Your task to perform on an android device: change the clock display to digital Image 0: 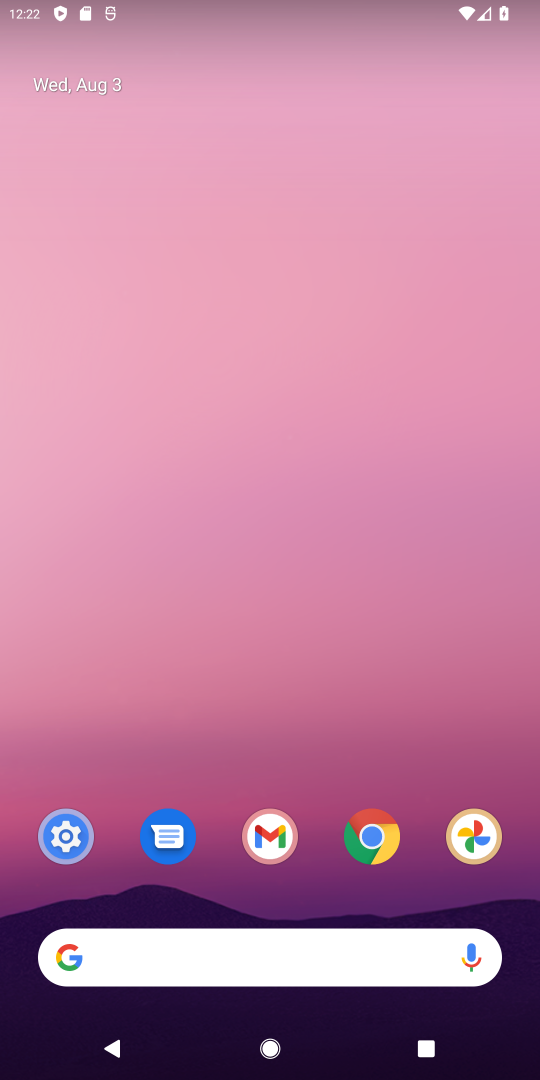
Step 0: drag from (249, 844) to (363, 418)
Your task to perform on an android device: change the clock display to digital Image 1: 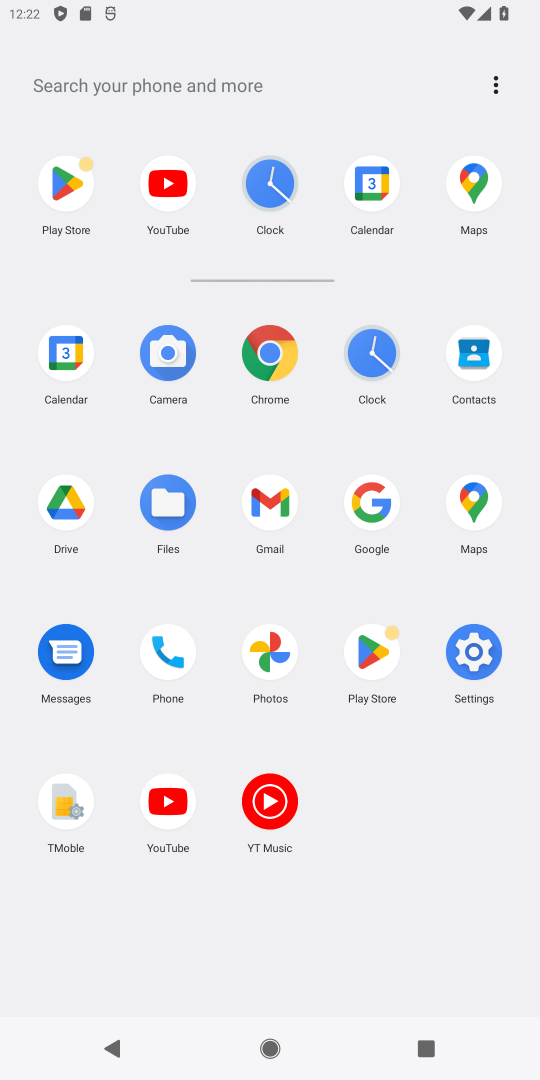
Step 1: drag from (327, 871) to (280, 505)
Your task to perform on an android device: change the clock display to digital Image 2: 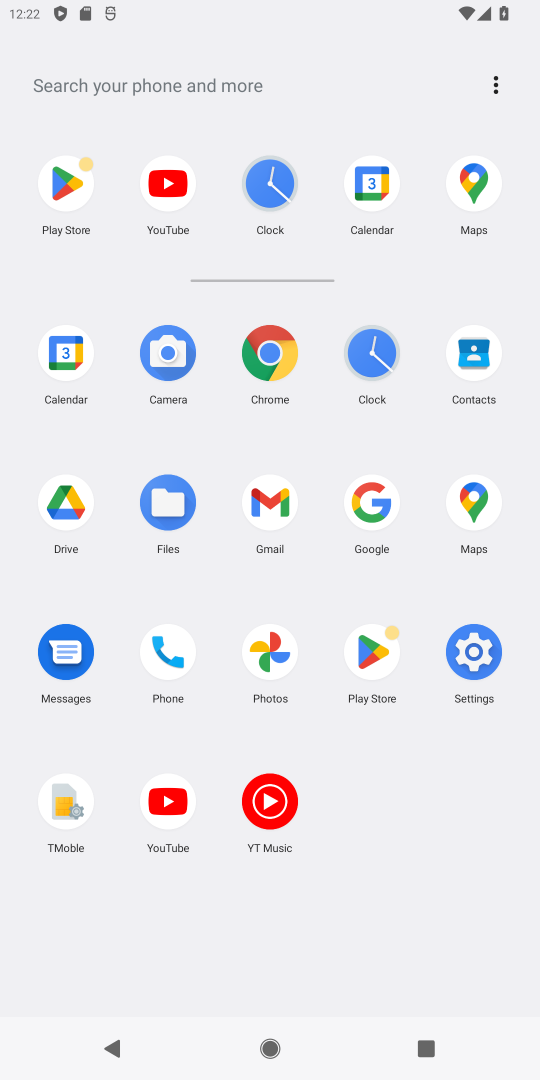
Step 2: click (370, 352)
Your task to perform on an android device: change the clock display to digital Image 3: 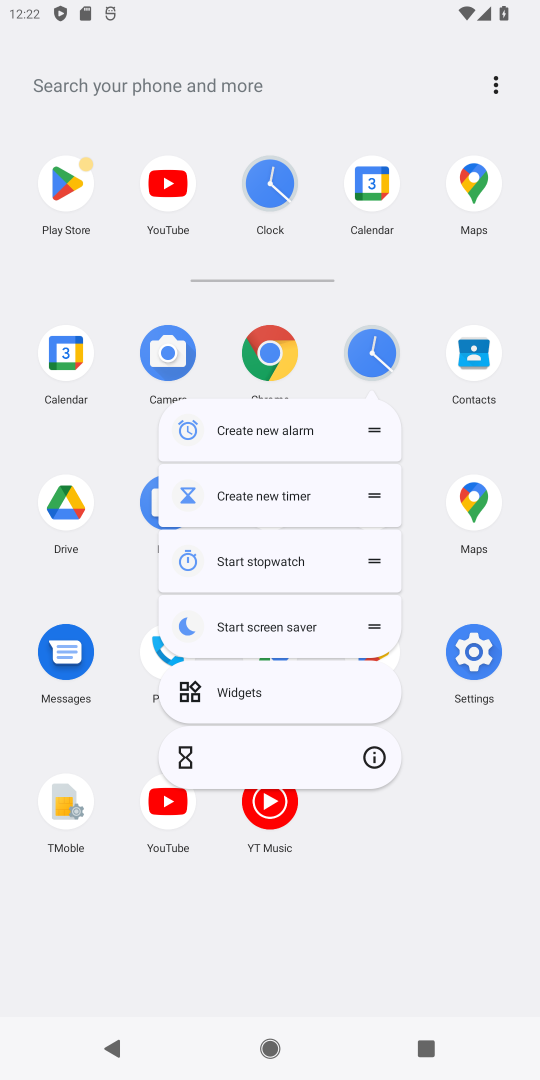
Step 3: click (369, 761)
Your task to perform on an android device: change the clock display to digital Image 4: 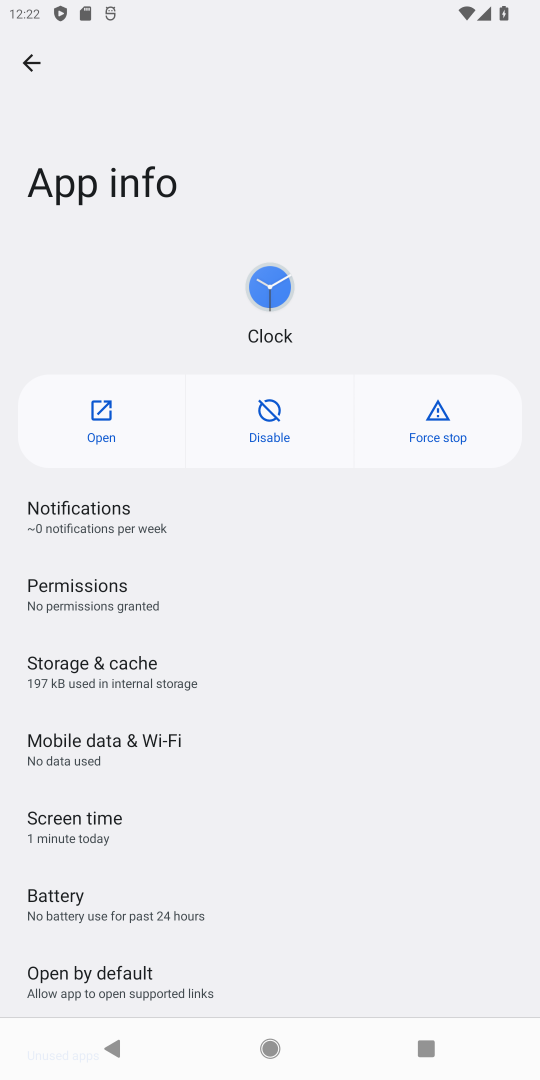
Step 4: click (103, 410)
Your task to perform on an android device: change the clock display to digital Image 5: 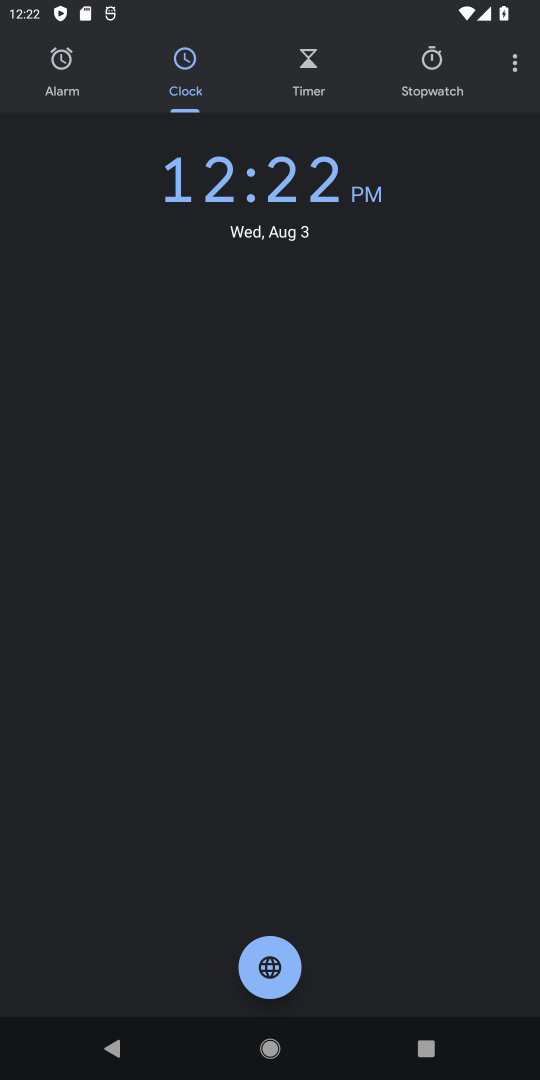
Step 5: click (519, 75)
Your task to perform on an android device: change the clock display to digital Image 6: 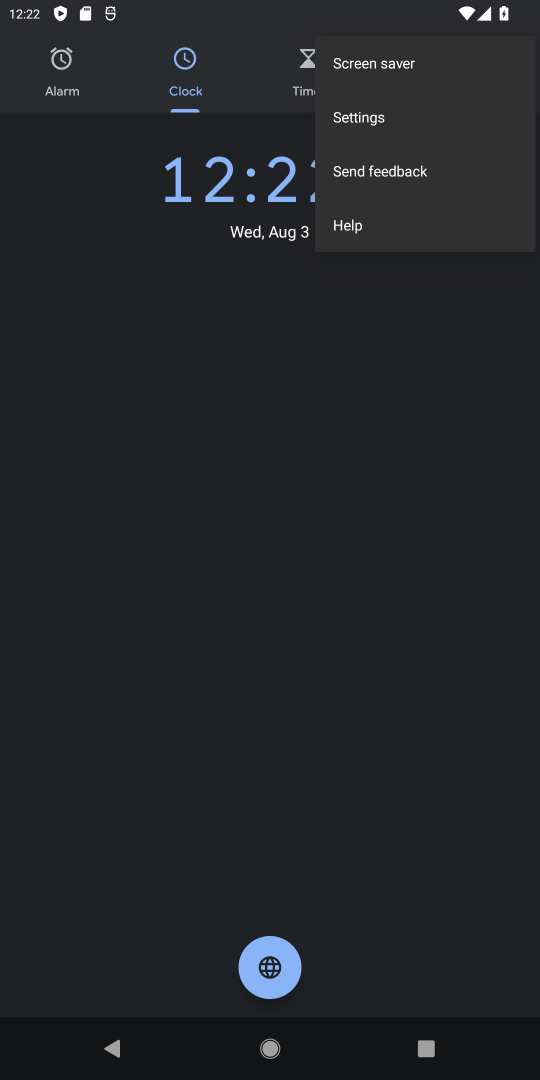
Step 6: click (381, 113)
Your task to perform on an android device: change the clock display to digital Image 7: 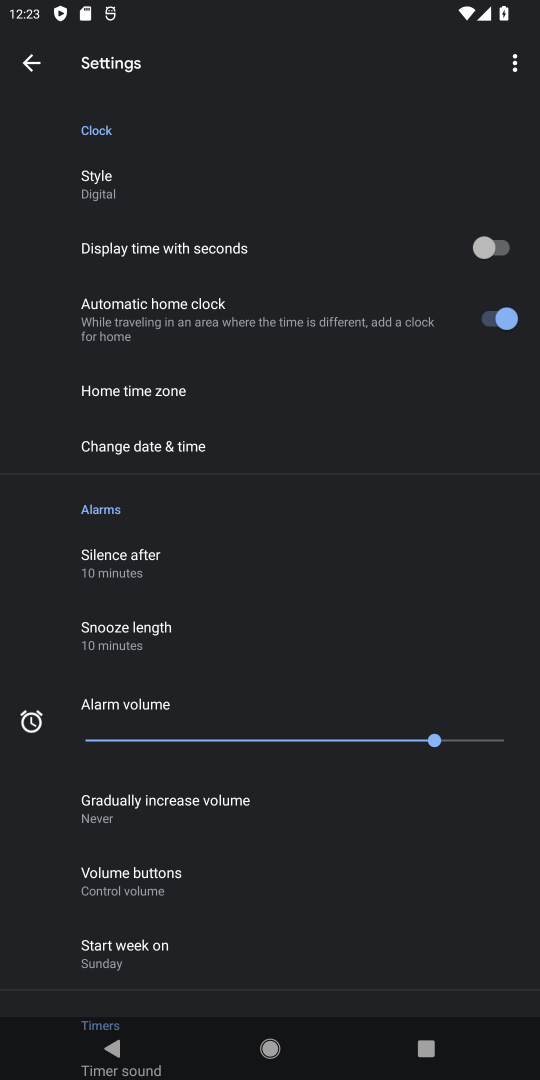
Step 7: drag from (295, 835) to (351, 287)
Your task to perform on an android device: change the clock display to digital Image 8: 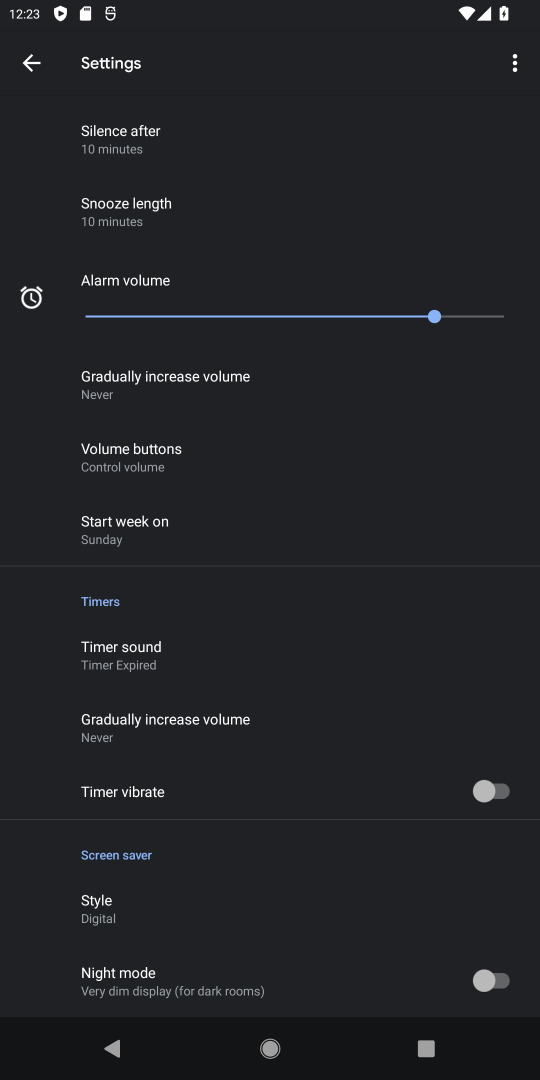
Step 8: drag from (305, 363) to (279, 954)
Your task to perform on an android device: change the clock display to digital Image 9: 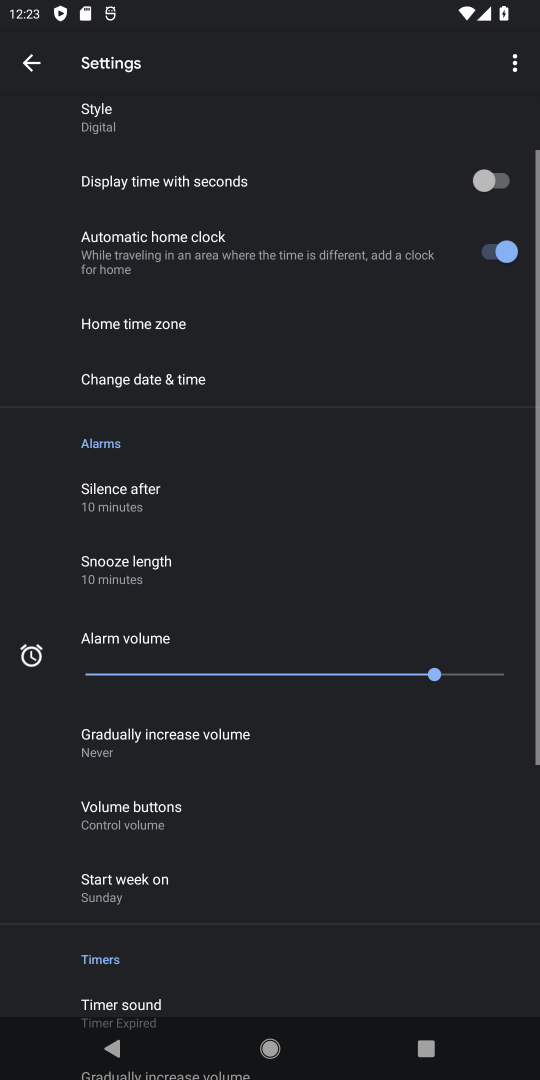
Step 9: drag from (221, 840) to (303, 439)
Your task to perform on an android device: change the clock display to digital Image 10: 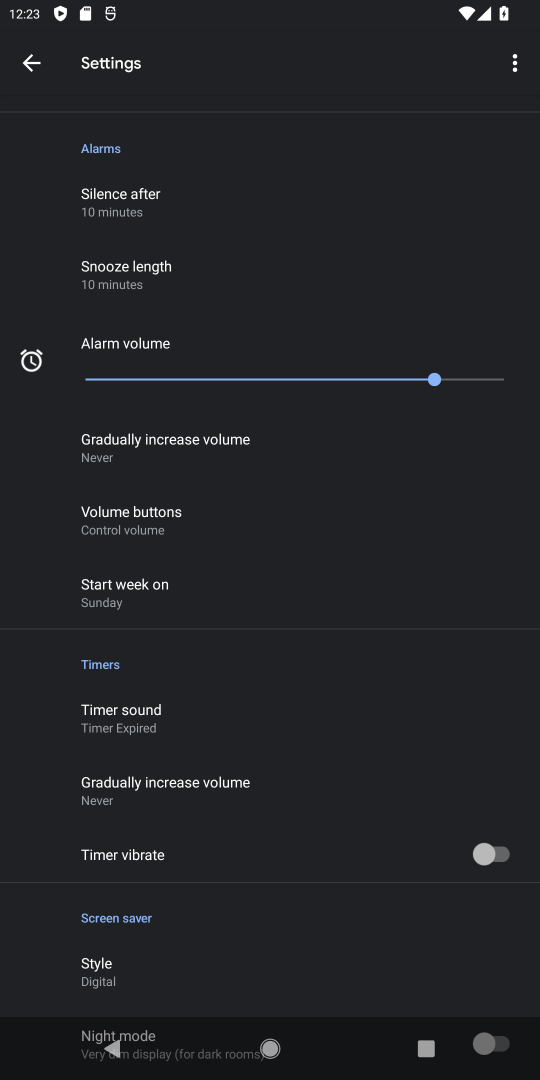
Step 10: drag from (332, 345) to (388, 1079)
Your task to perform on an android device: change the clock display to digital Image 11: 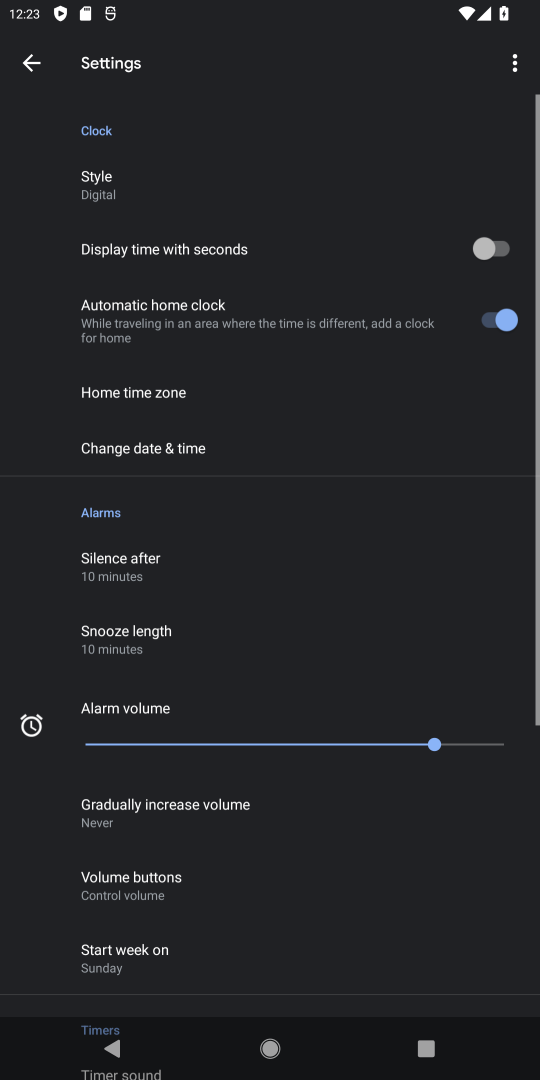
Step 11: drag from (324, 869) to (407, 289)
Your task to perform on an android device: change the clock display to digital Image 12: 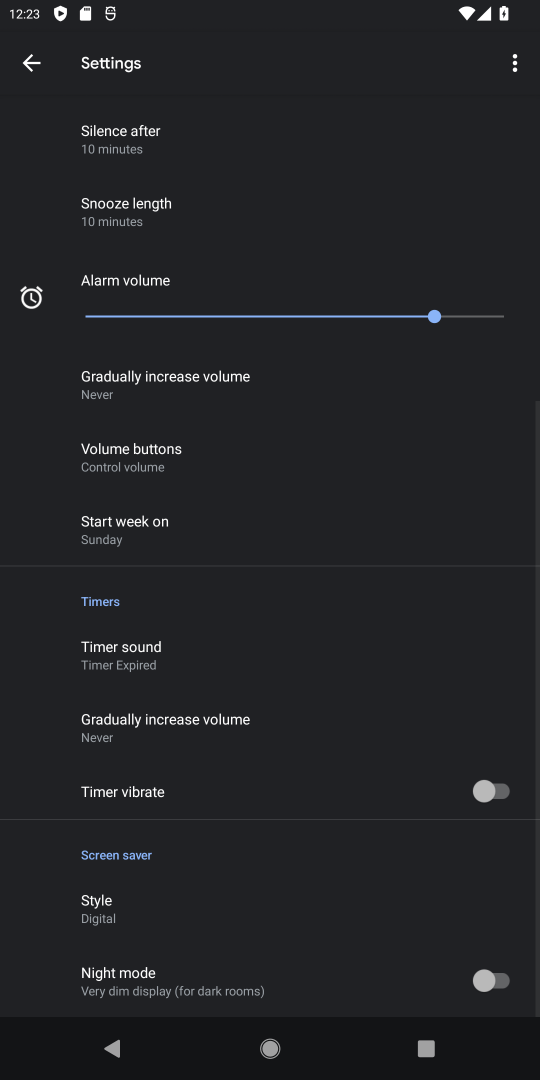
Step 12: drag from (339, 315) to (306, 900)
Your task to perform on an android device: change the clock display to digital Image 13: 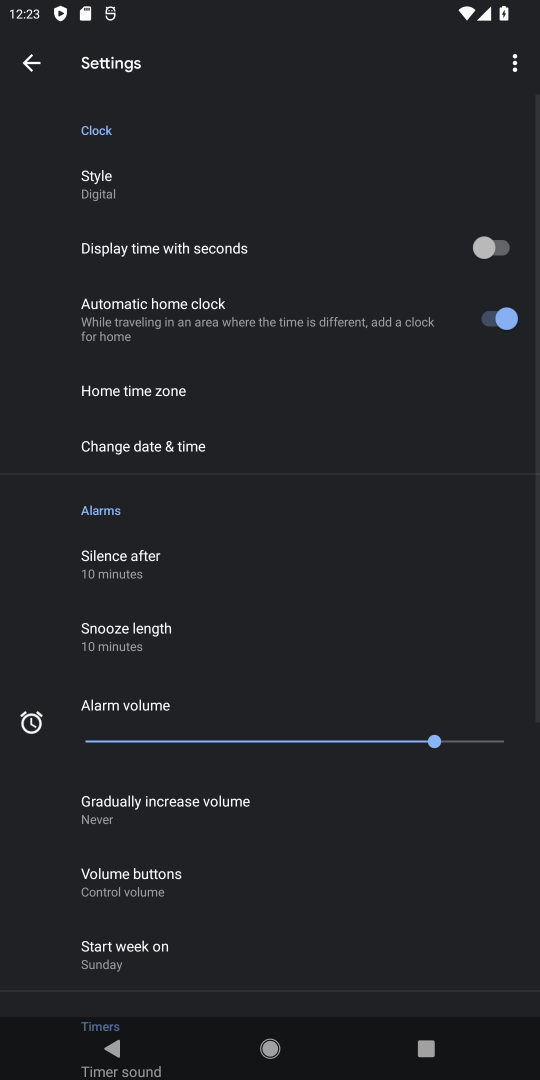
Step 13: drag from (285, 819) to (386, 289)
Your task to perform on an android device: change the clock display to digital Image 14: 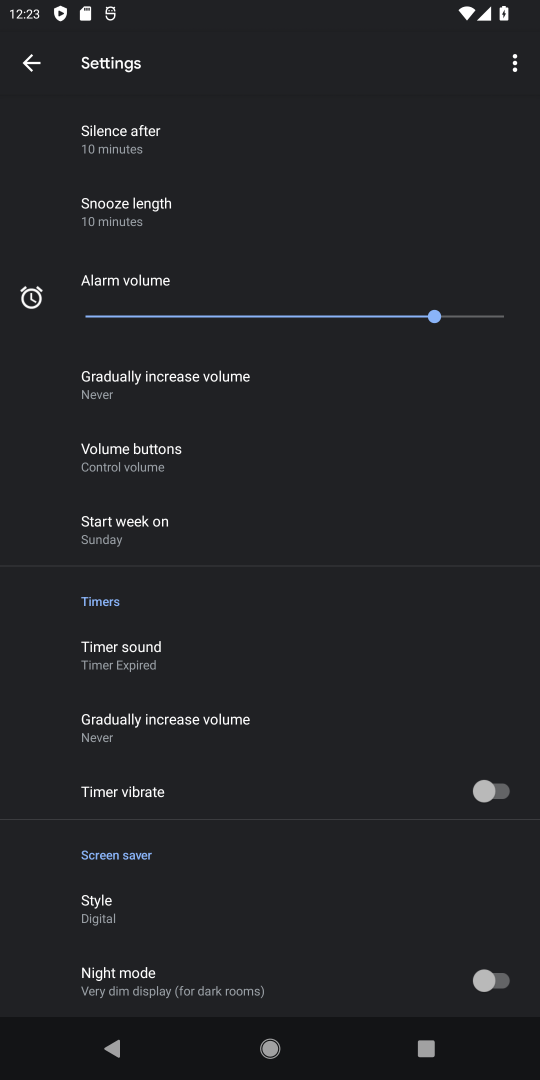
Step 14: drag from (317, 247) to (273, 690)
Your task to perform on an android device: change the clock display to digital Image 15: 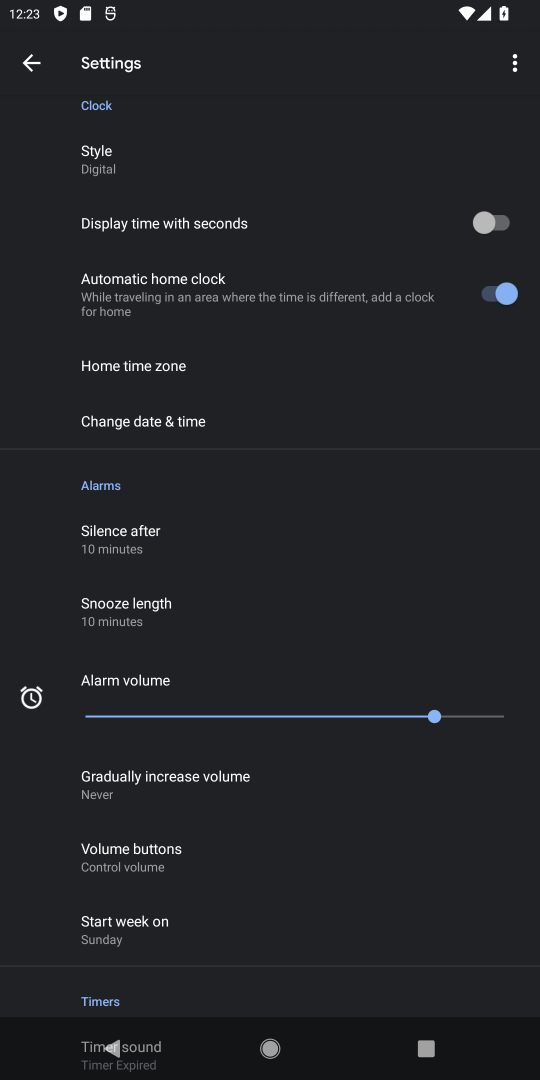
Step 15: drag from (226, 633) to (272, 336)
Your task to perform on an android device: change the clock display to digital Image 16: 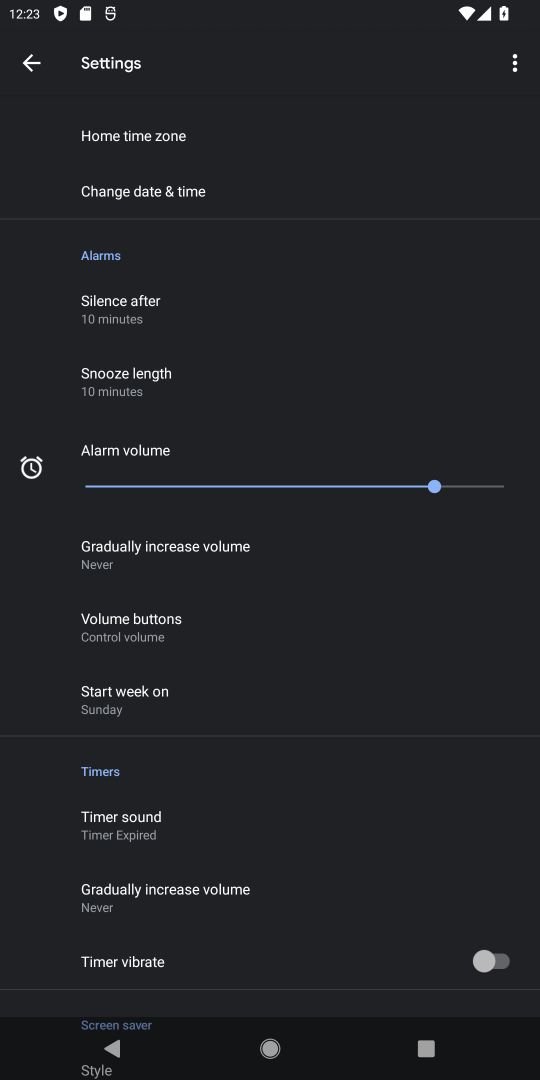
Step 16: drag from (142, 388) to (221, 161)
Your task to perform on an android device: change the clock display to digital Image 17: 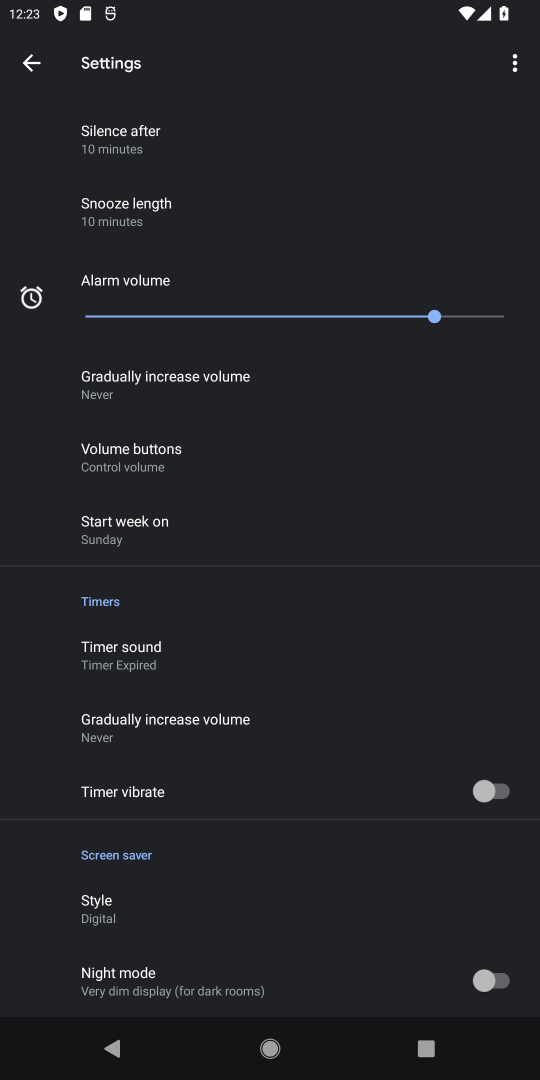
Step 17: drag from (219, 673) to (273, 264)
Your task to perform on an android device: change the clock display to digital Image 18: 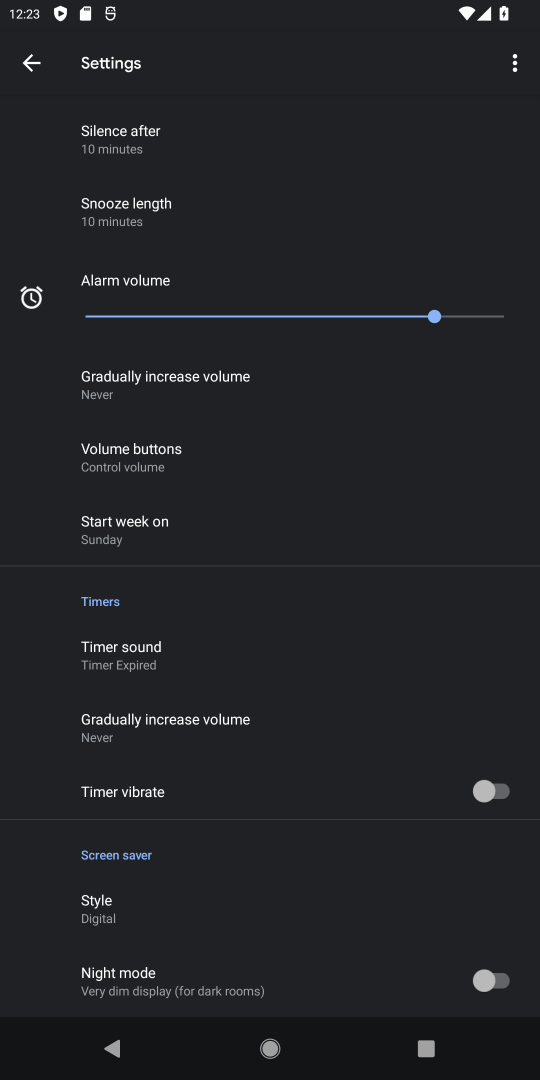
Step 18: drag from (205, 145) to (291, 879)
Your task to perform on an android device: change the clock display to digital Image 19: 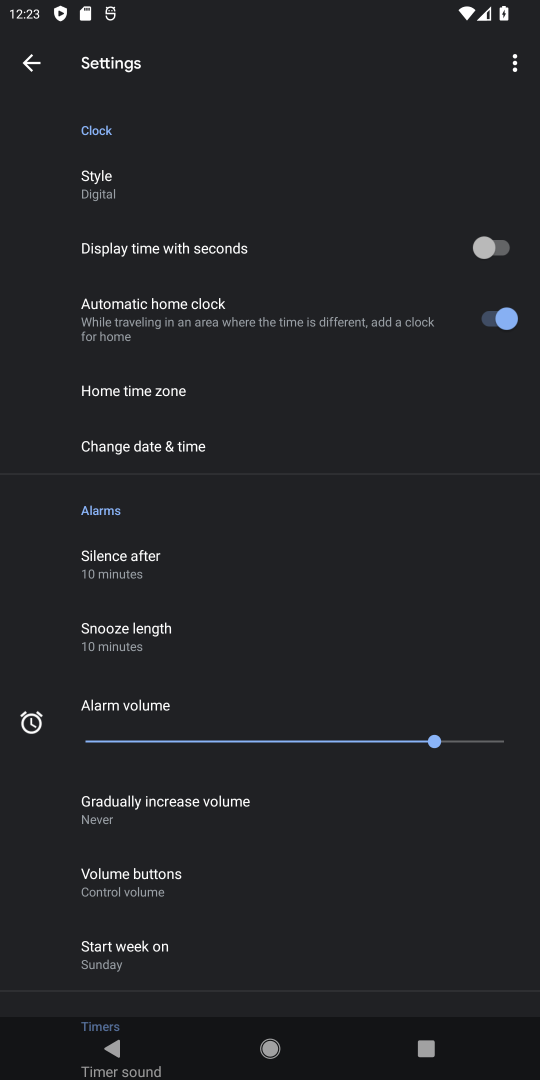
Step 19: drag from (289, 853) to (388, 961)
Your task to perform on an android device: change the clock display to digital Image 20: 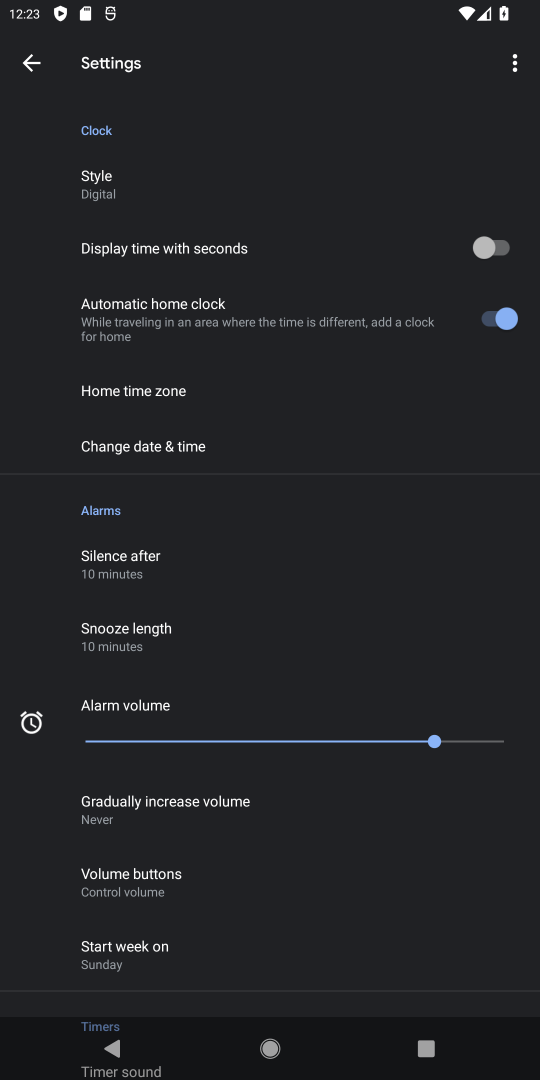
Step 20: drag from (266, 346) to (401, 910)
Your task to perform on an android device: change the clock display to digital Image 21: 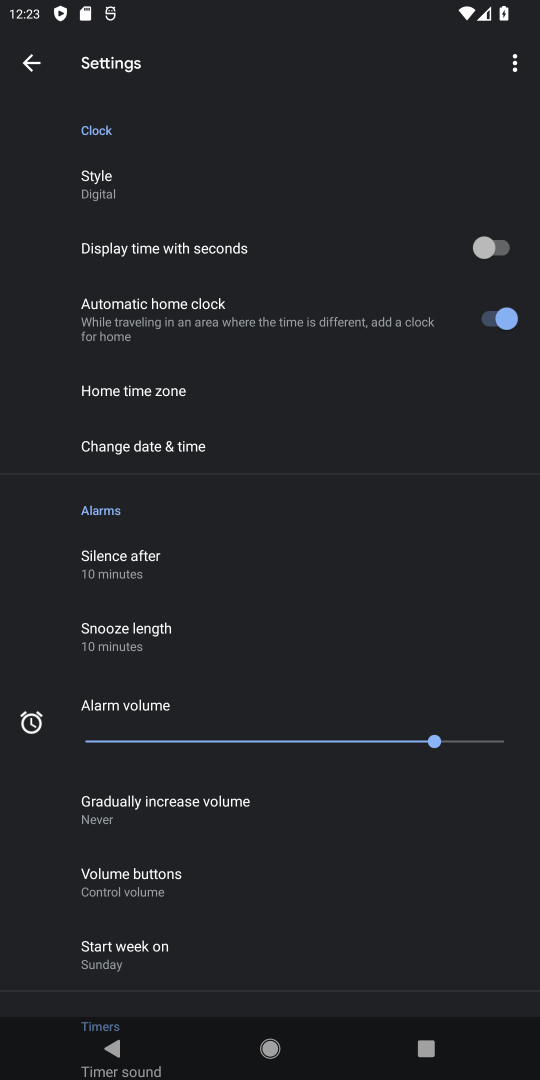
Step 21: click (120, 179)
Your task to perform on an android device: change the clock display to digital Image 22: 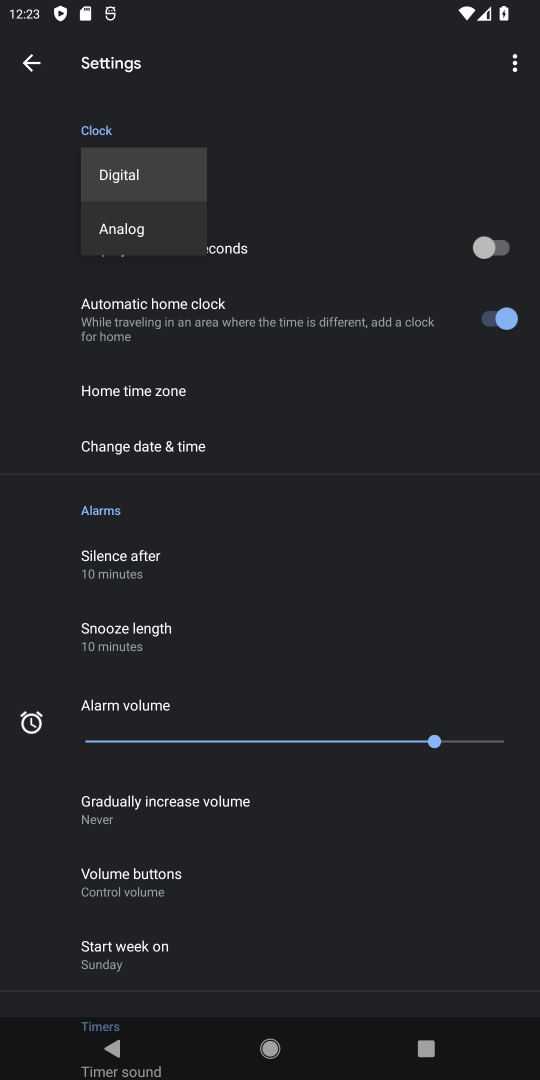
Step 22: task complete